Your task to perform on an android device: Open the map Image 0: 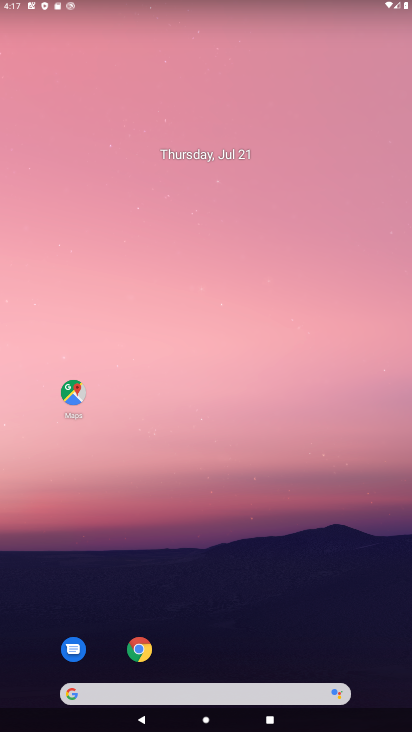
Step 0: click (71, 411)
Your task to perform on an android device: Open the map Image 1: 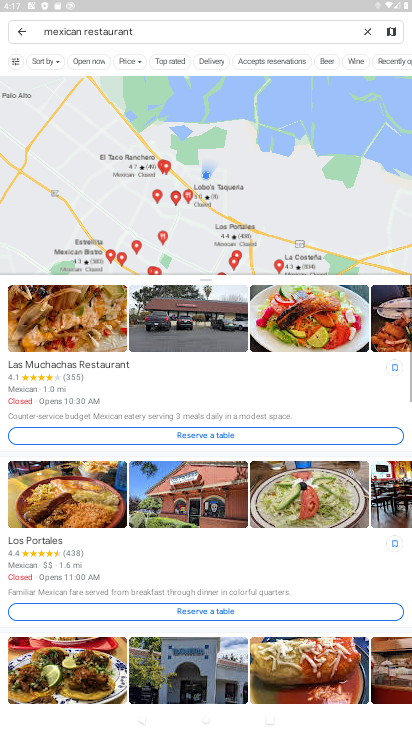
Step 1: task complete